Your task to perform on an android device: add a contact in the contacts app Image 0: 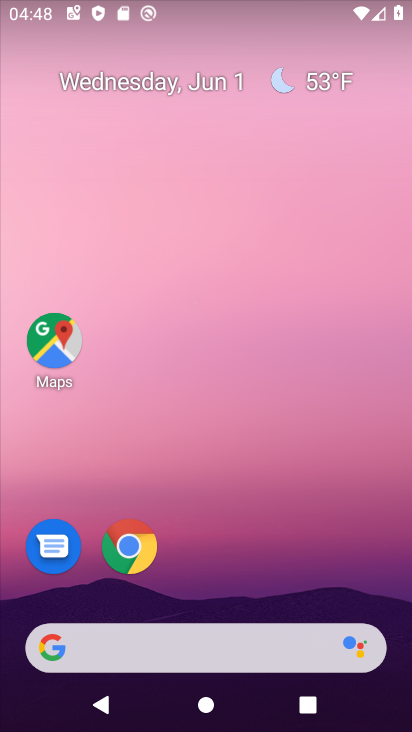
Step 0: drag from (256, 515) to (215, 243)
Your task to perform on an android device: add a contact in the contacts app Image 1: 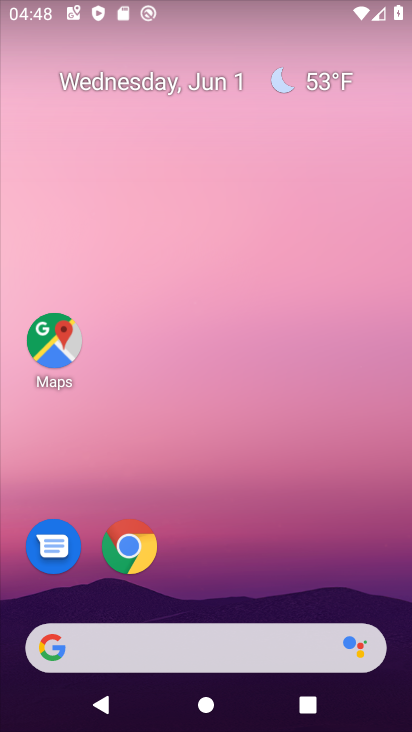
Step 1: drag from (205, 481) to (212, 164)
Your task to perform on an android device: add a contact in the contacts app Image 2: 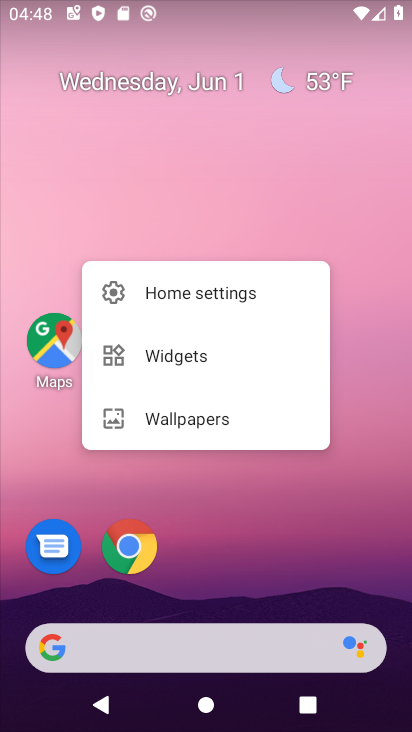
Step 2: click (254, 204)
Your task to perform on an android device: add a contact in the contacts app Image 3: 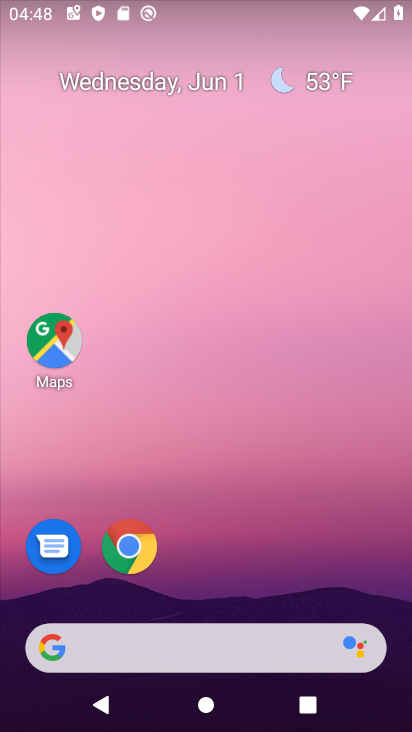
Step 3: drag from (216, 488) to (216, 109)
Your task to perform on an android device: add a contact in the contacts app Image 4: 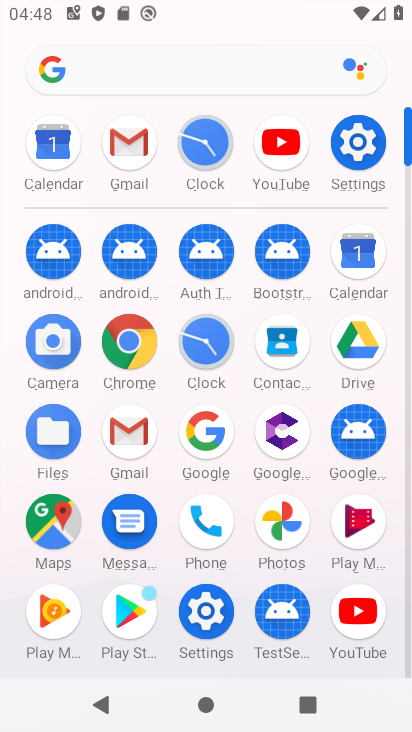
Step 4: click (280, 334)
Your task to perform on an android device: add a contact in the contacts app Image 5: 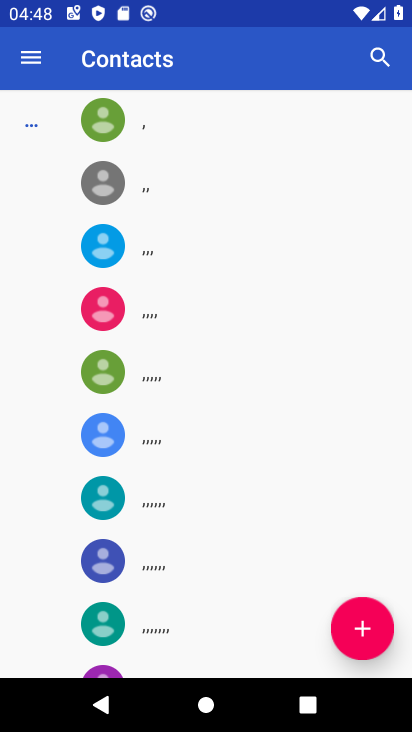
Step 5: click (361, 626)
Your task to perform on an android device: add a contact in the contacts app Image 6: 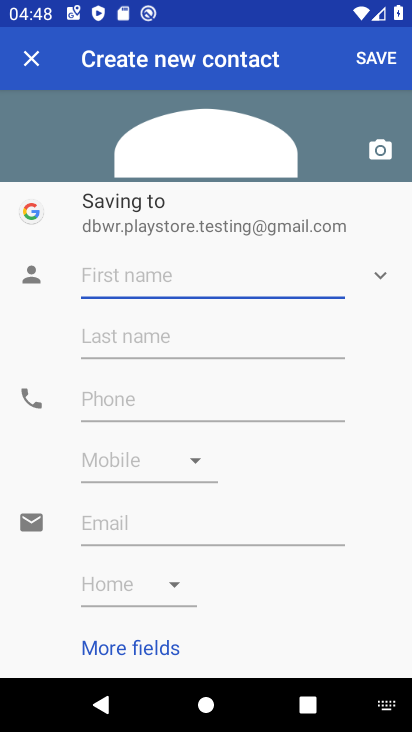
Step 6: type "dfgfdfg"
Your task to perform on an android device: add a contact in the contacts app Image 7: 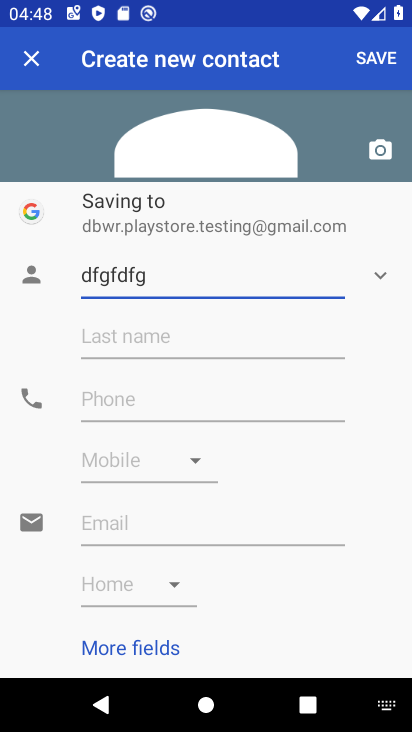
Step 7: click (113, 389)
Your task to perform on an android device: add a contact in the contacts app Image 8: 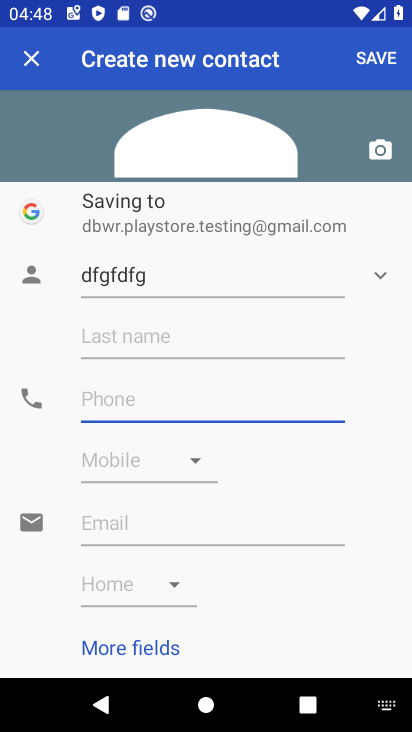
Step 8: type "987654321"
Your task to perform on an android device: add a contact in the contacts app Image 9: 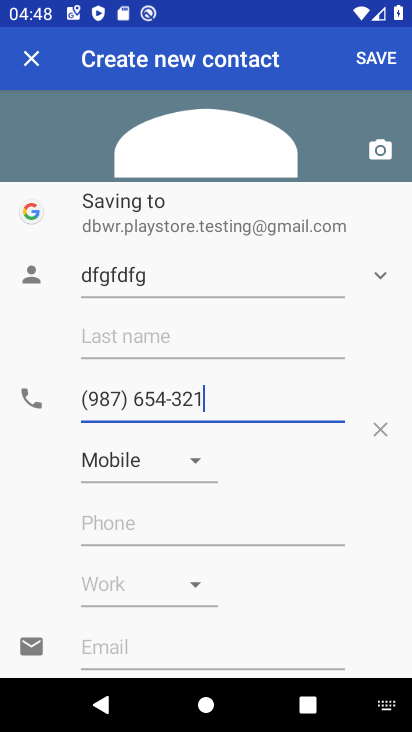
Step 9: click (373, 57)
Your task to perform on an android device: add a contact in the contacts app Image 10: 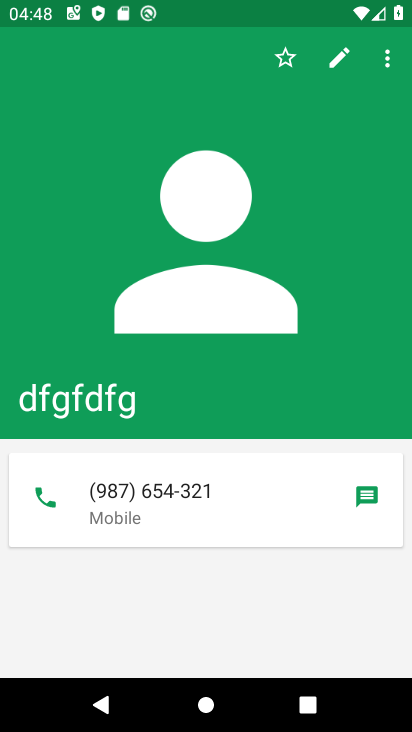
Step 10: task complete